Your task to perform on an android device: Search for vegetarian restaurants on Maps Image 0: 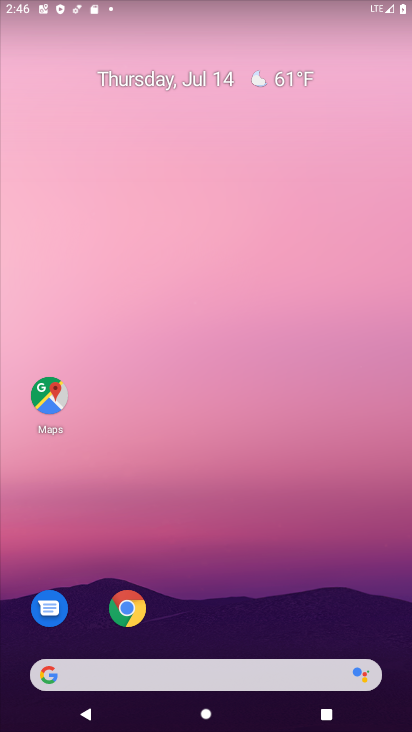
Step 0: drag from (251, 551) to (251, 315)
Your task to perform on an android device: Search for vegetarian restaurants on Maps Image 1: 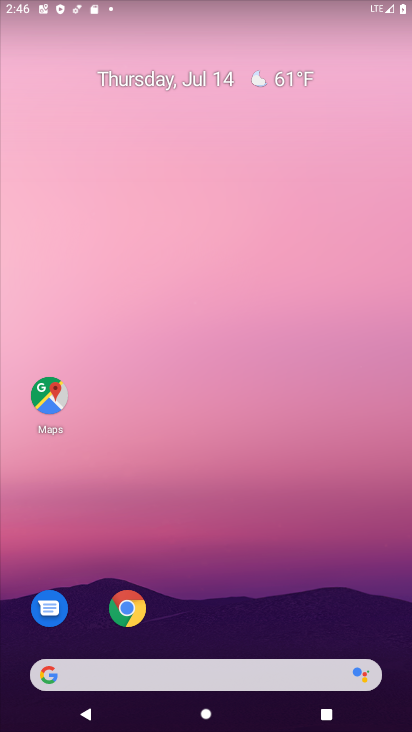
Step 1: click (42, 391)
Your task to perform on an android device: Search for vegetarian restaurants on Maps Image 2: 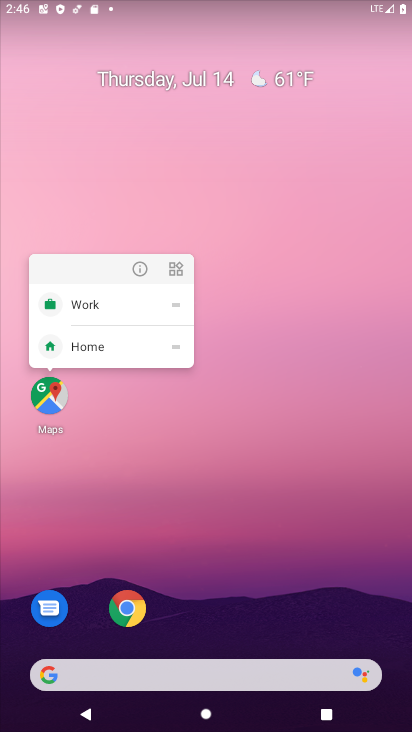
Step 2: click (43, 395)
Your task to perform on an android device: Search for vegetarian restaurants on Maps Image 3: 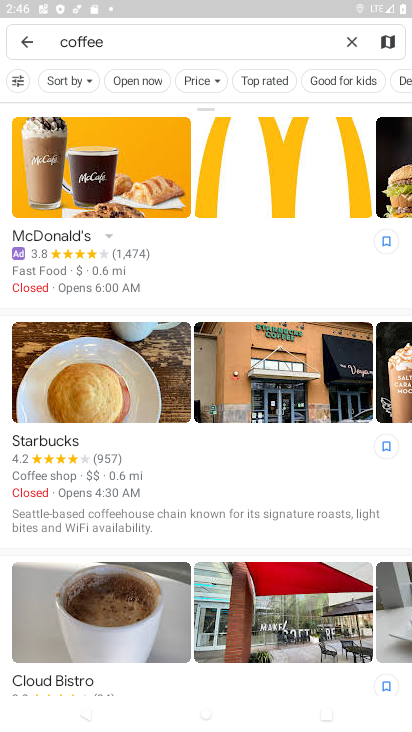
Step 3: click (347, 42)
Your task to perform on an android device: Search for vegetarian restaurants on Maps Image 4: 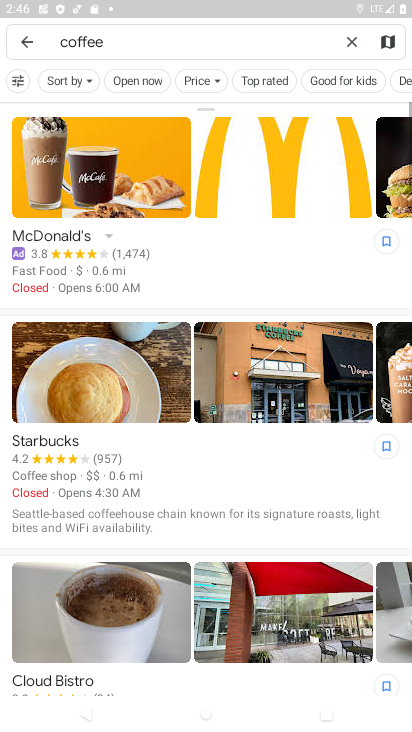
Step 4: click (157, 41)
Your task to perform on an android device: Search for vegetarian restaurants on Maps Image 5: 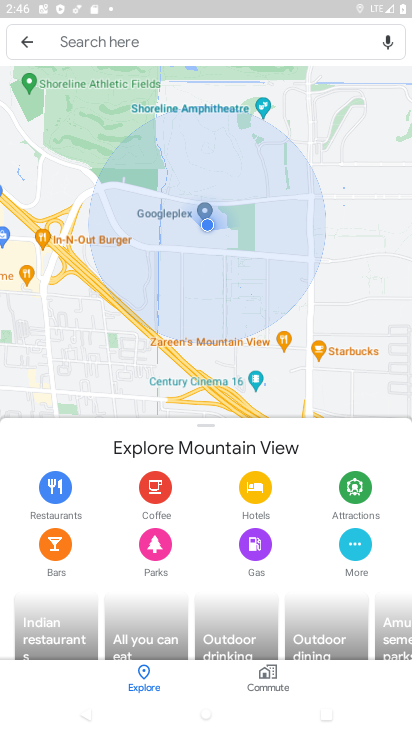
Step 5: click (157, 41)
Your task to perform on an android device: Search for vegetarian restaurants on Maps Image 6: 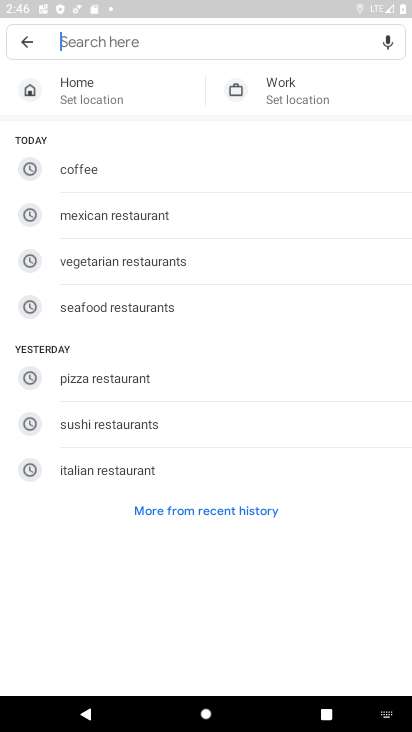
Step 6: click (100, 258)
Your task to perform on an android device: Search for vegetarian restaurants on Maps Image 7: 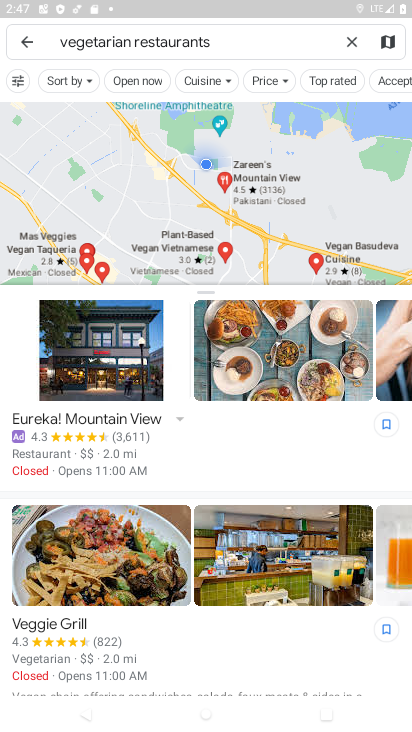
Step 7: task complete